Your task to perform on an android device: How do I get to the nearest Sprint Store? Image 0: 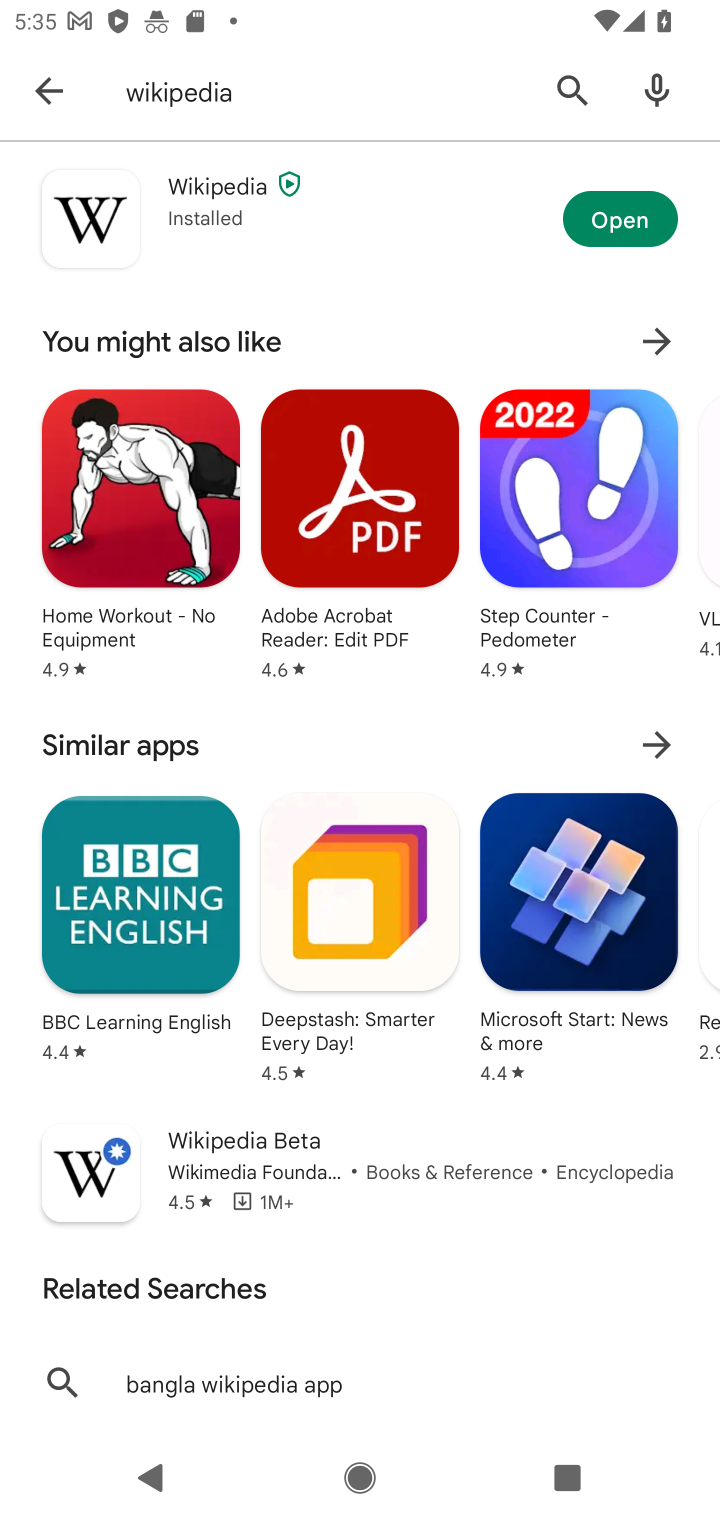
Step 0: press home button
Your task to perform on an android device: How do I get to the nearest Sprint Store? Image 1: 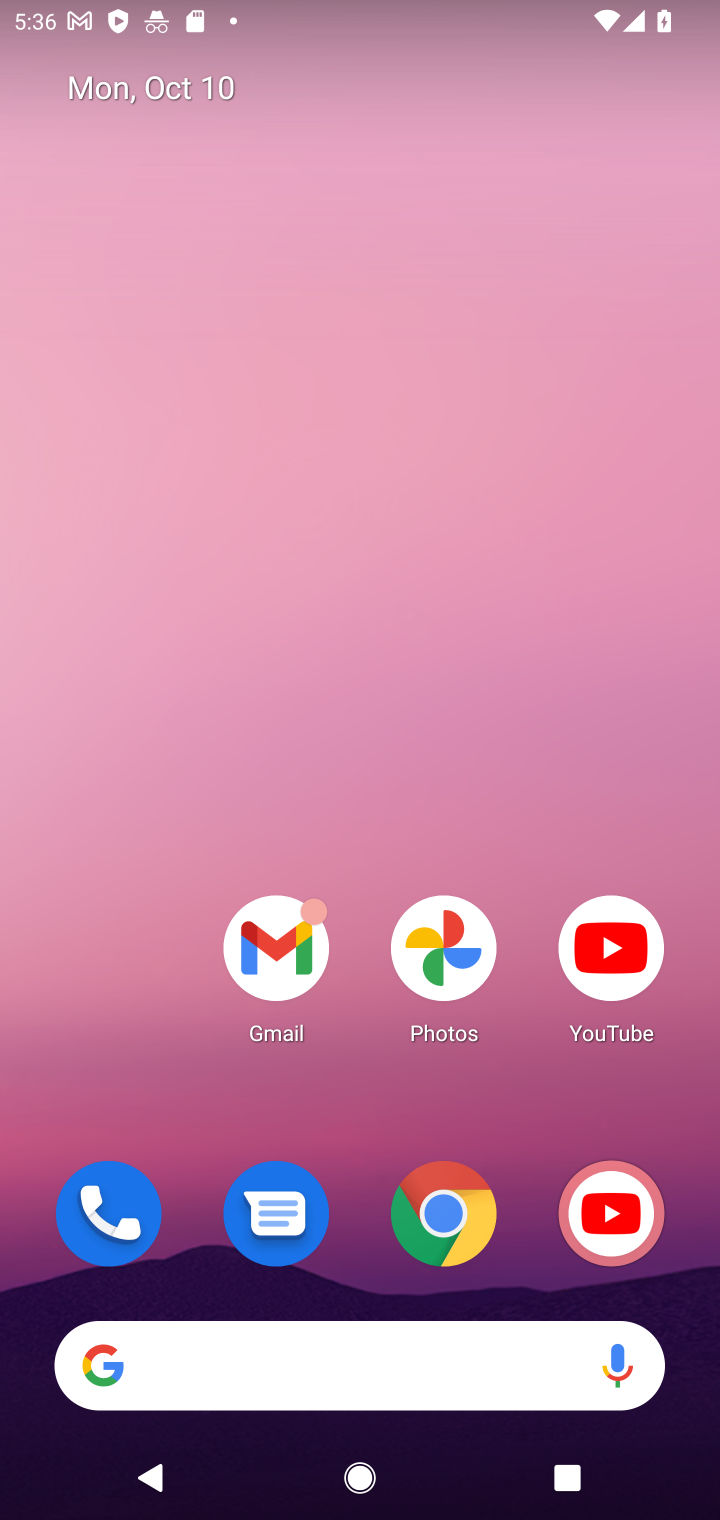
Step 1: click (300, 1381)
Your task to perform on an android device: How do I get to the nearest Sprint Store? Image 2: 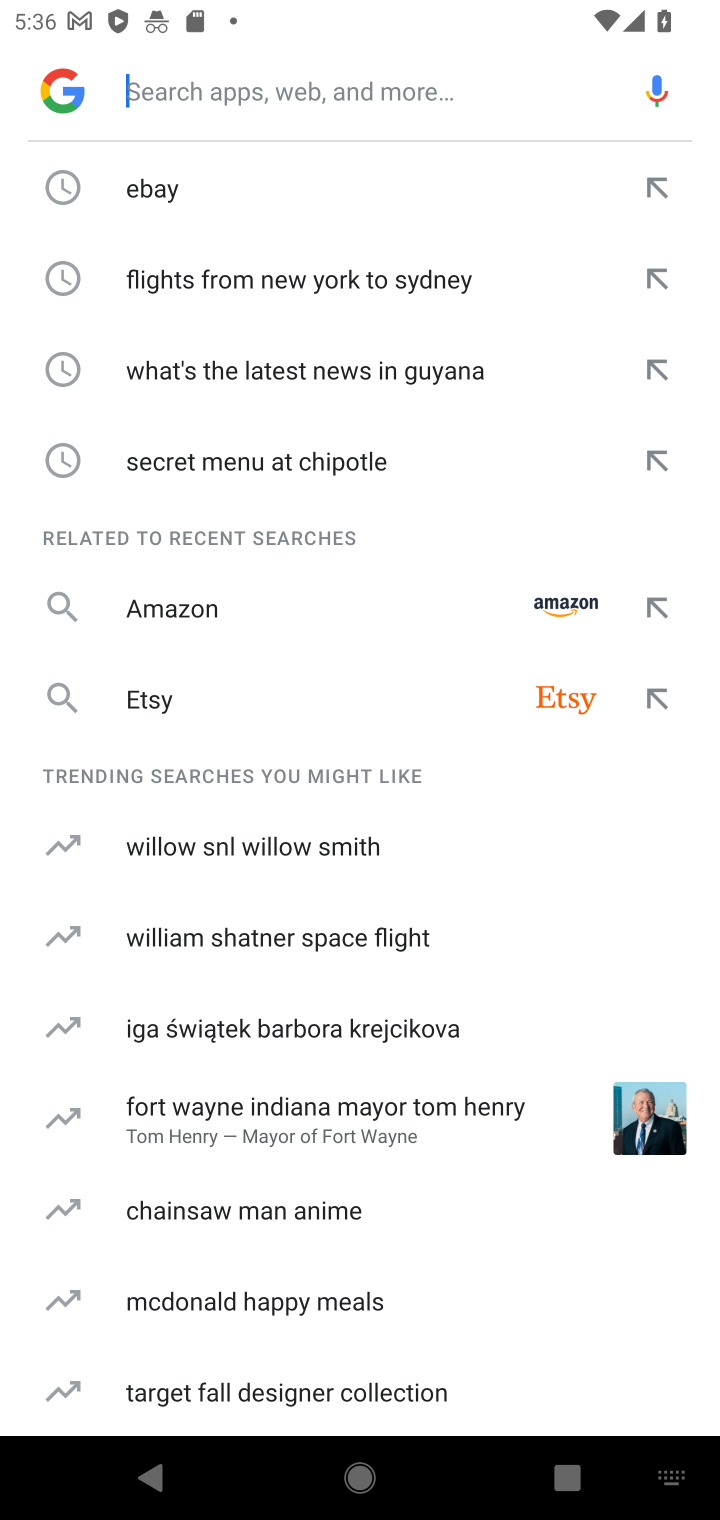
Step 2: type "How do I get to the nearest Sprint Store?"
Your task to perform on an android device: How do I get to the nearest Sprint Store? Image 3: 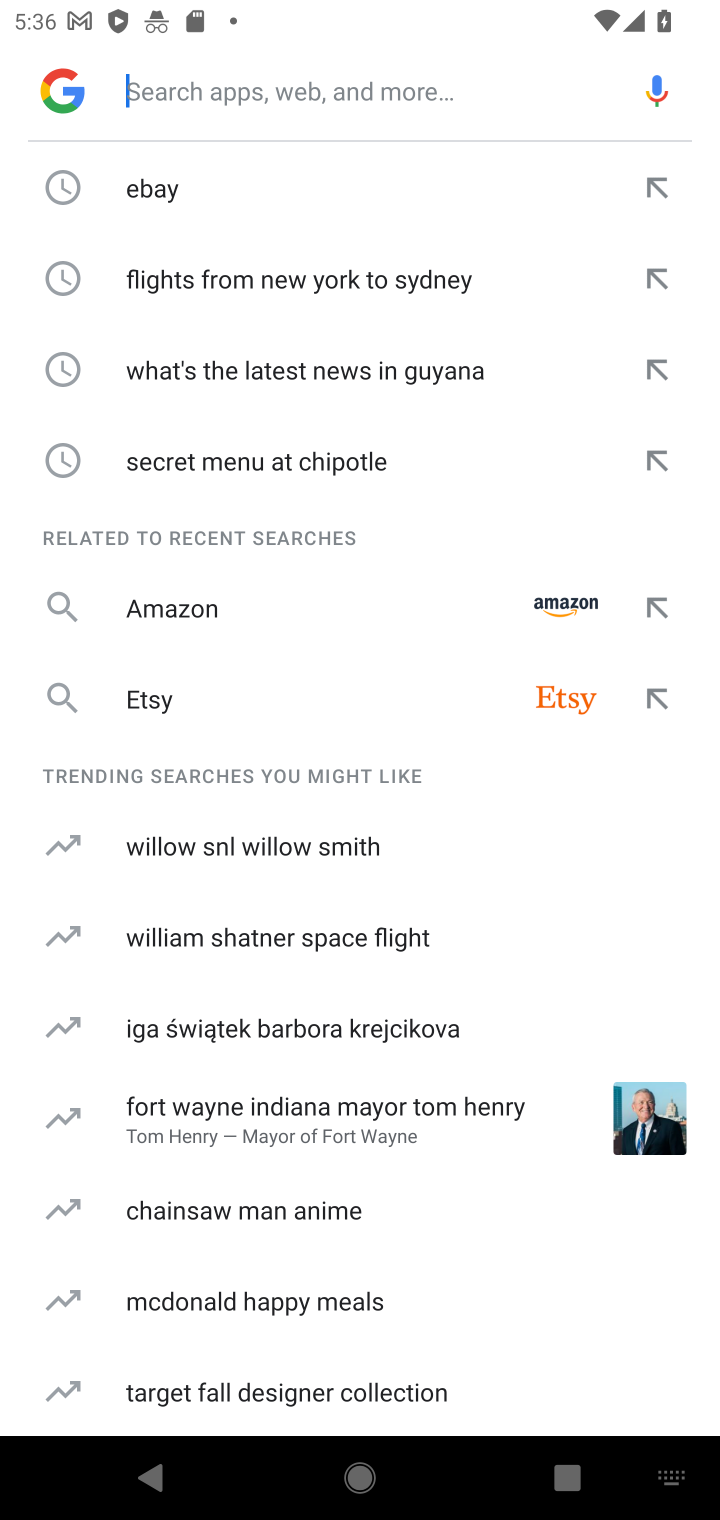
Step 3: click (342, 110)
Your task to perform on an android device: How do I get to the nearest Sprint Store? Image 4: 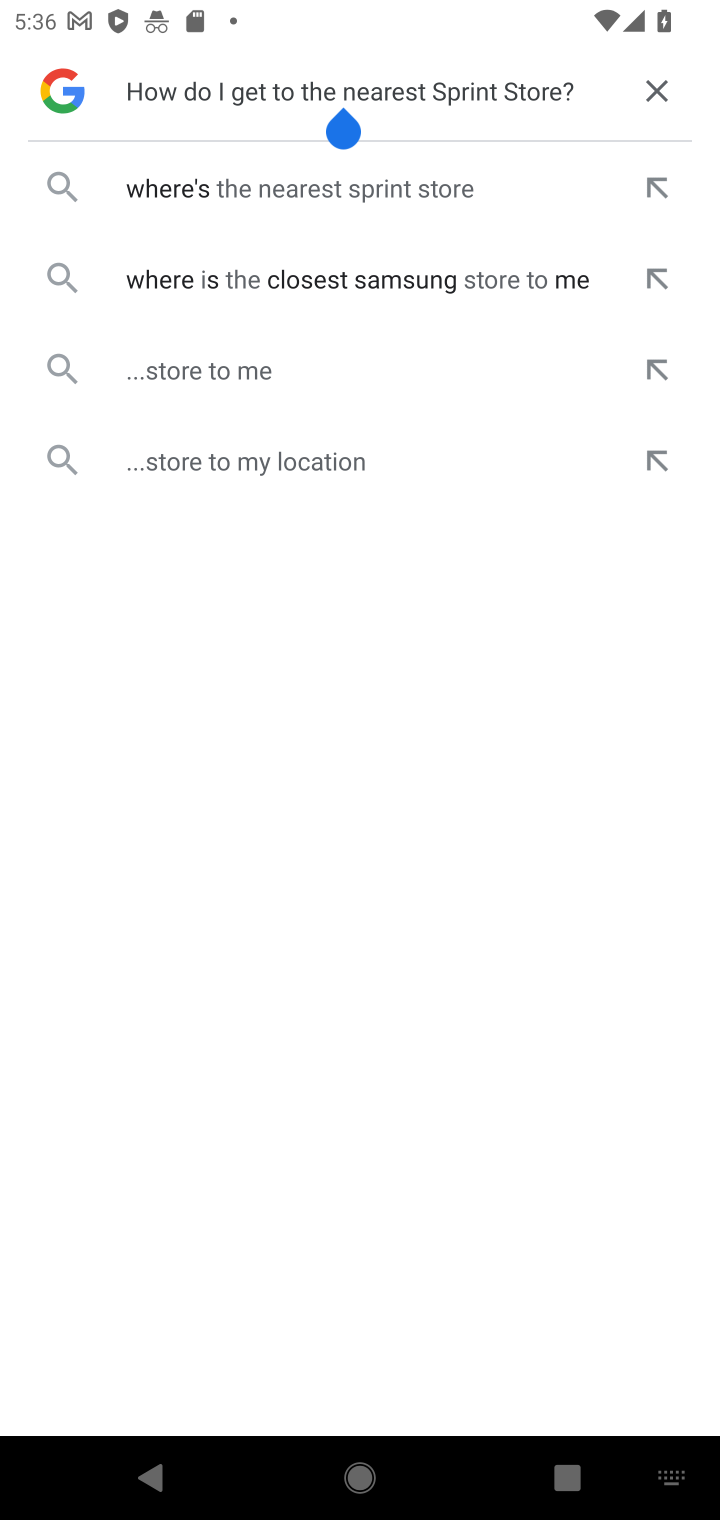
Step 4: type "How do I get to the nearest Sprint Store?"
Your task to perform on an android device: How do I get to the nearest Sprint Store? Image 5: 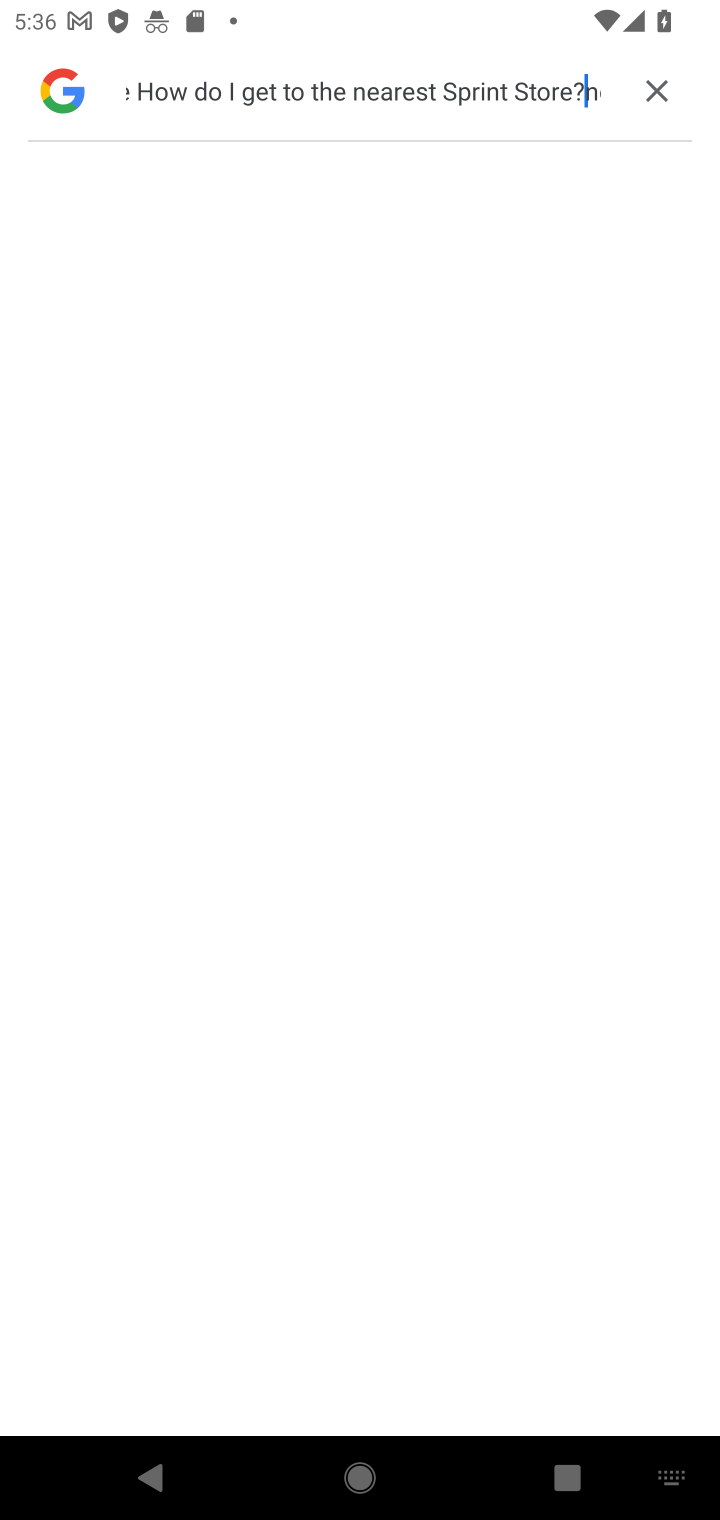
Step 5: click (643, 77)
Your task to perform on an android device: How do I get to the nearest Sprint Store? Image 6: 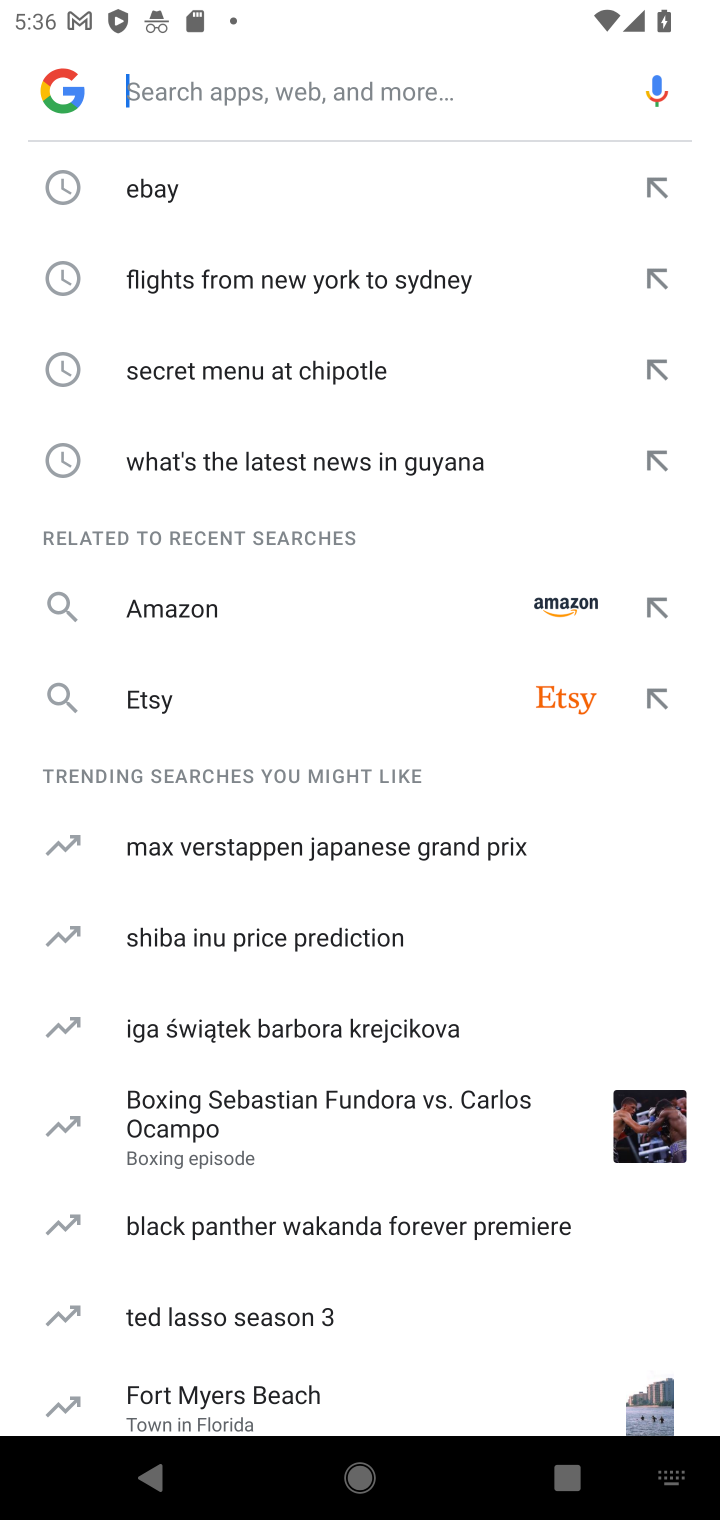
Step 6: click (463, 94)
Your task to perform on an android device: How do I get to the nearest Sprint Store? Image 7: 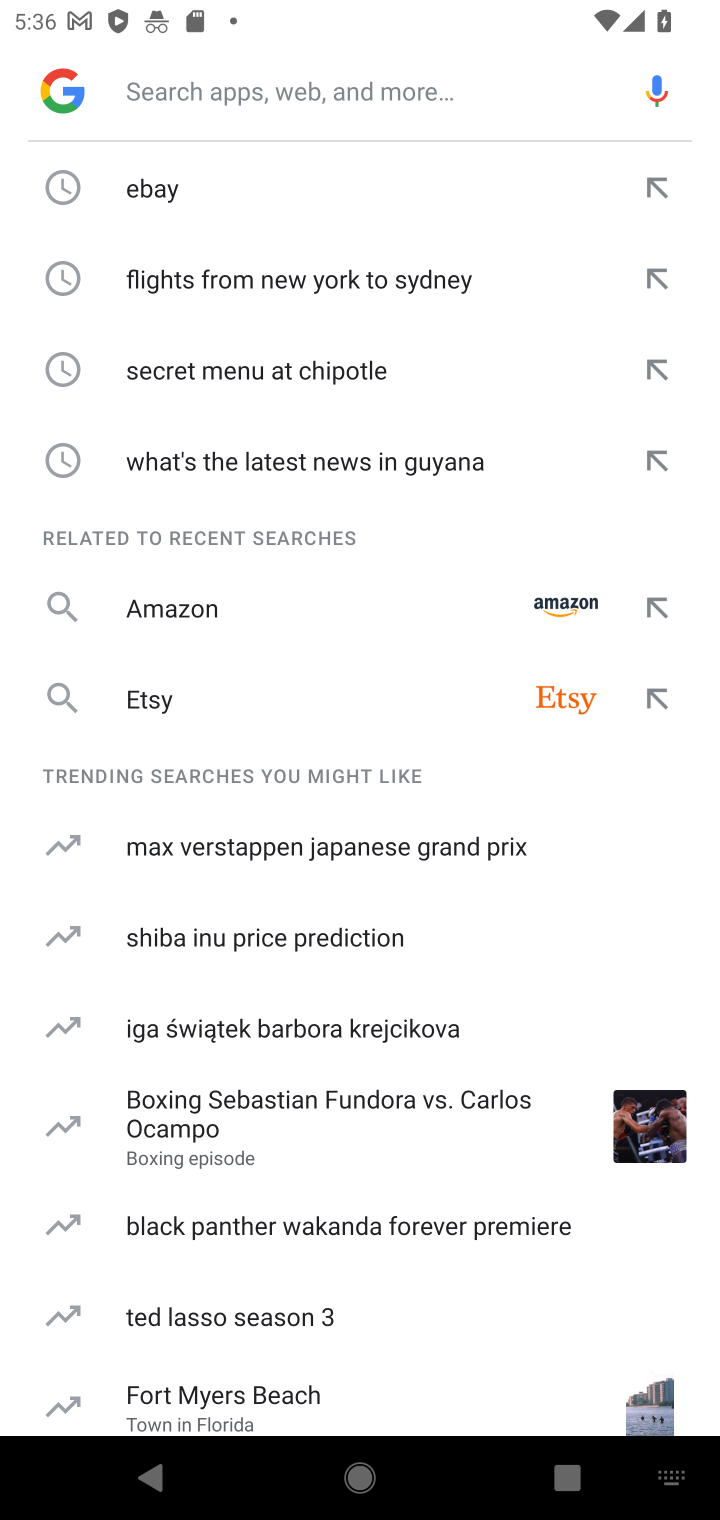
Step 7: type "How do I get to the nearest Sprint Store?"
Your task to perform on an android device: How do I get to the nearest Sprint Store? Image 8: 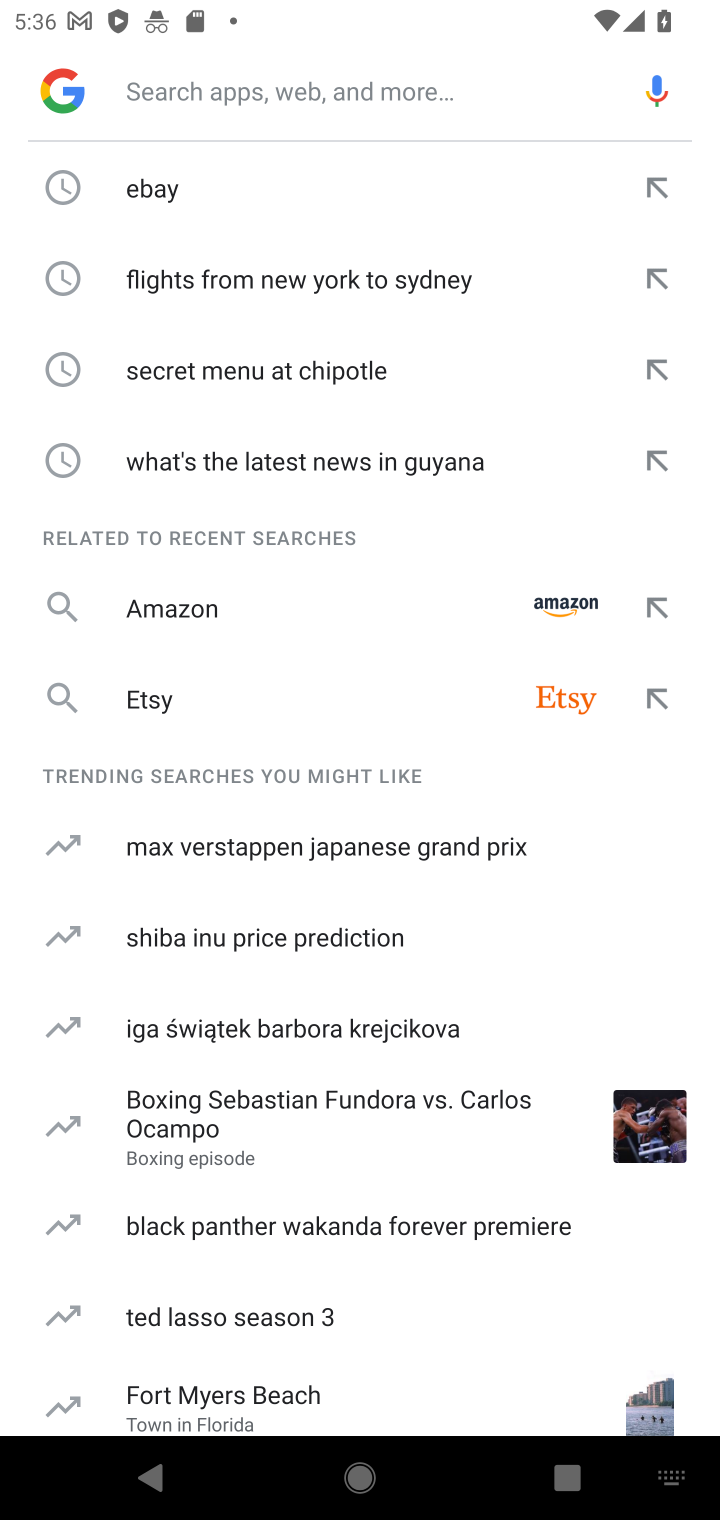
Step 8: click (337, 86)
Your task to perform on an android device: How do I get to the nearest Sprint Store? Image 9: 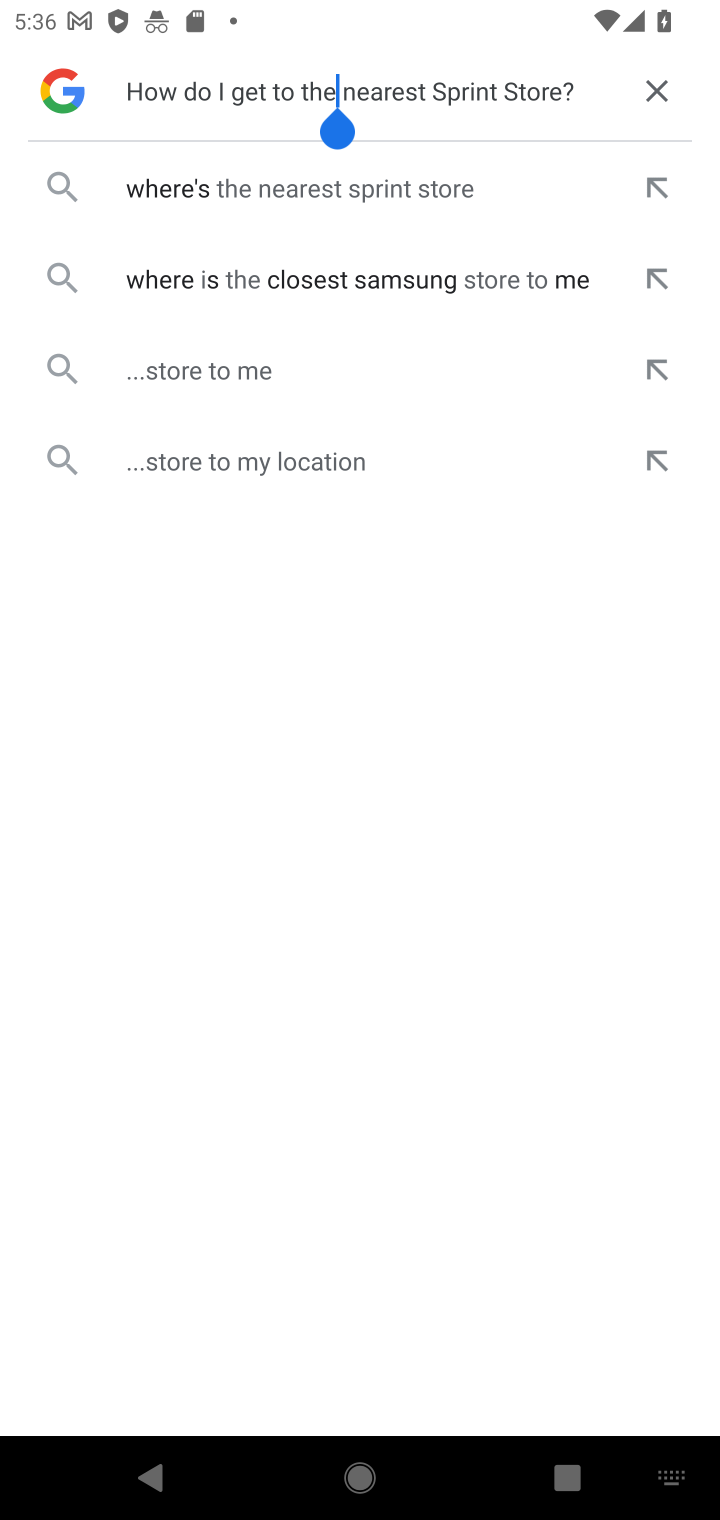
Step 9: click (322, 183)
Your task to perform on an android device: How do I get to the nearest Sprint Store? Image 10: 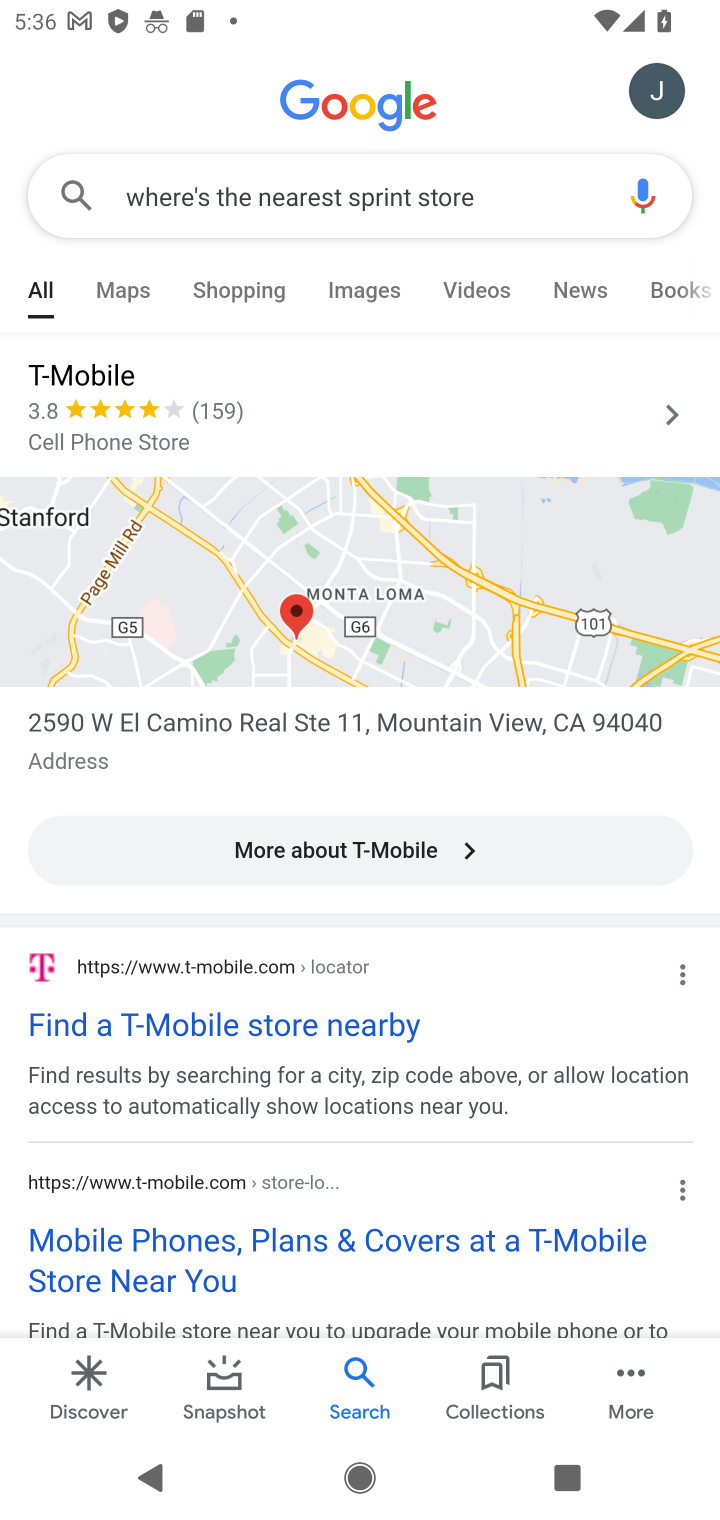
Step 10: task complete